Your task to perform on an android device: Open Youtube and go to the subscriptions tab Image 0: 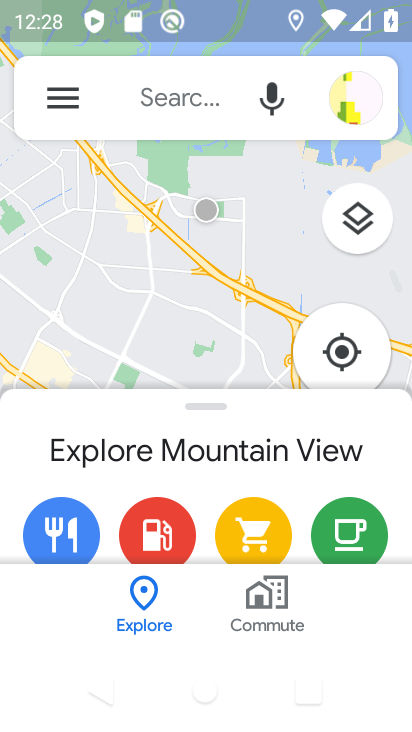
Step 0: press home button
Your task to perform on an android device: Open Youtube and go to the subscriptions tab Image 1: 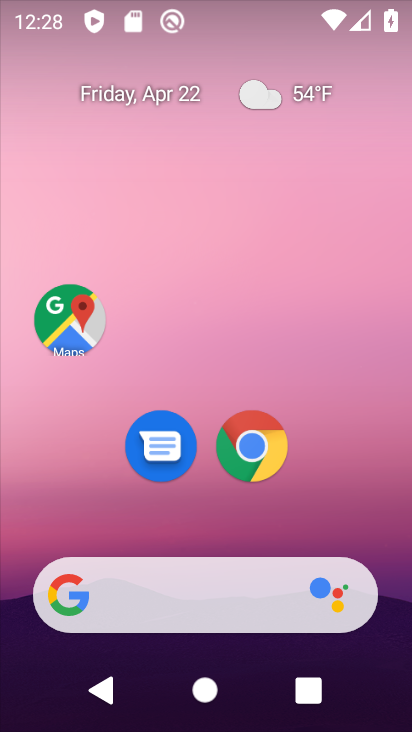
Step 1: drag from (345, 505) to (346, 192)
Your task to perform on an android device: Open Youtube and go to the subscriptions tab Image 2: 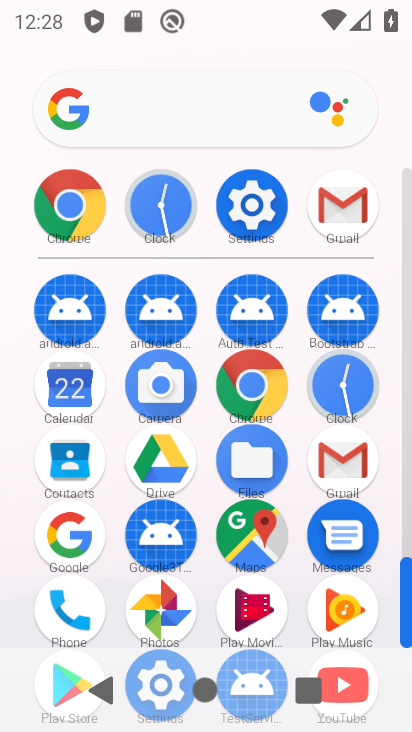
Step 2: drag from (392, 566) to (397, 415)
Your task to perform on an android device: Open Youtube and go to the subscriptions tab Image 3: 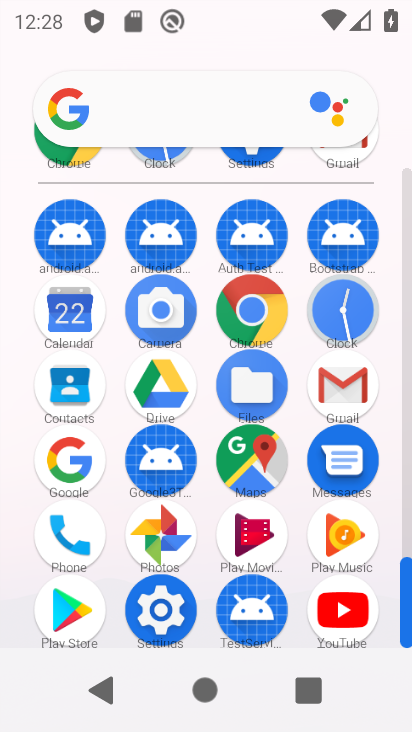
Step 3: click (355, 607)
Your task to perform on an android device: Open Youtube and go to the subscriptions tab Image 4: 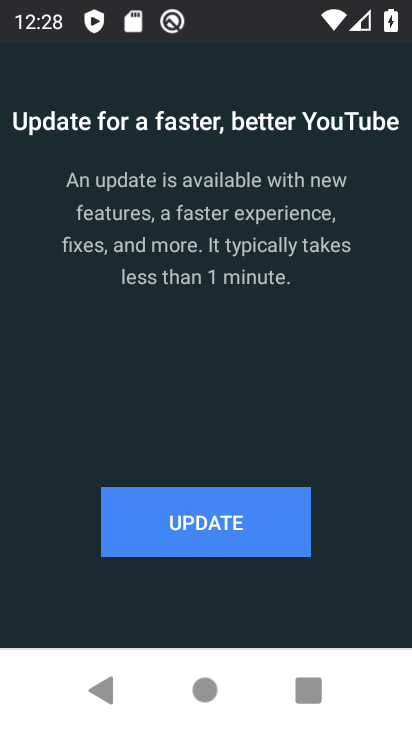
Step 4: click (247, 549)
Your task to perform on an android device: Open Youtube and go to the subscriptions tab Image 5: 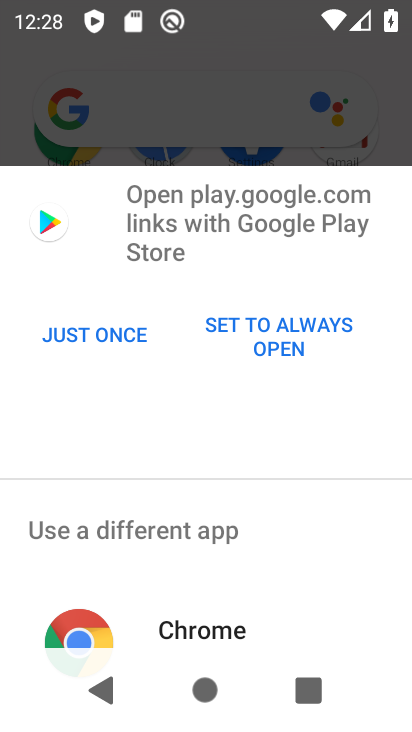
Step 5: click (110, 331)
Your task to perform on an android device: Open Youtube and go to the subscriptions tab Image 6: 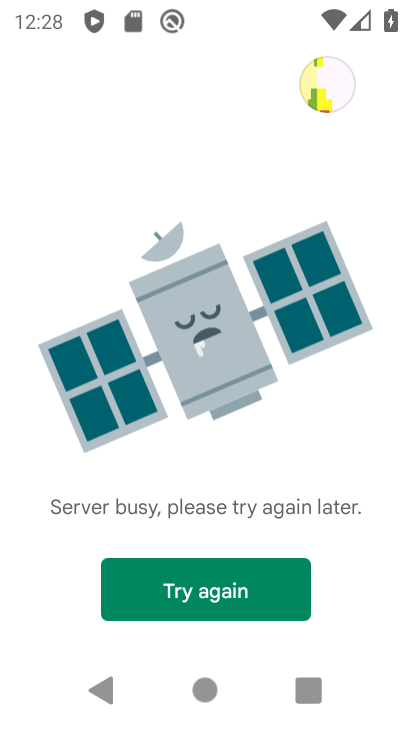
Step 6: task complete